Your task to perform on an android device: turn off data saver in the chrome app Image 0: 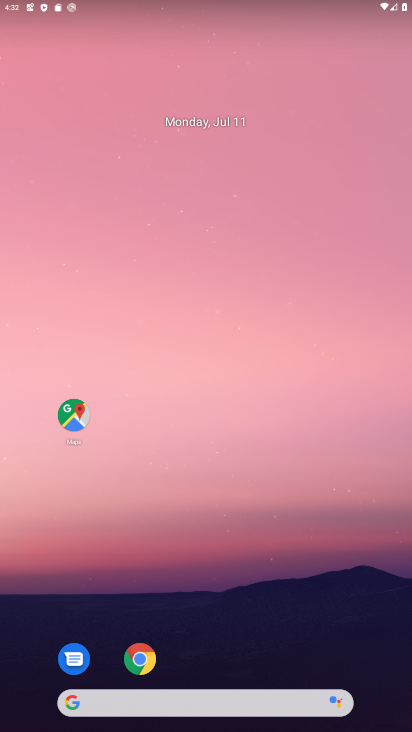
Step 0: click (140, 660)
Your task to perform on an android device: turn off data saver in the chrome app Image 1: 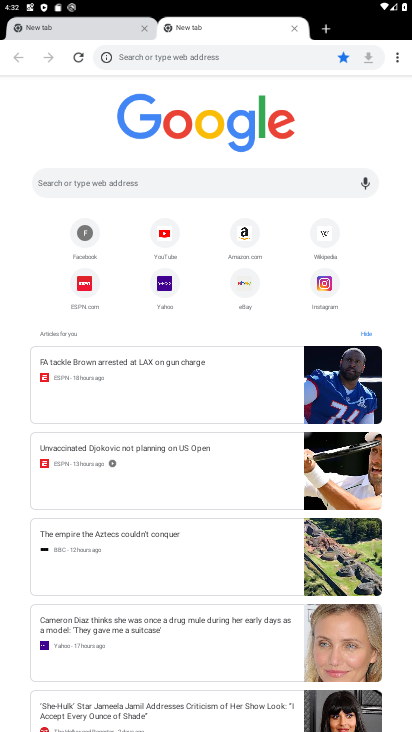
Step 1: click (397, 63)
Your task to perform on an android device: turn off data saver in the chrome app Image 2: 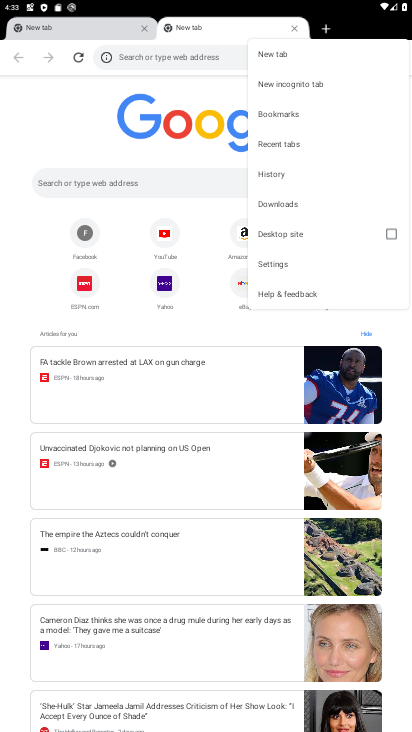
Step 2: click (294, 263)
Your task to perform on an android device: turn off data saver in the chrome app Image 3: 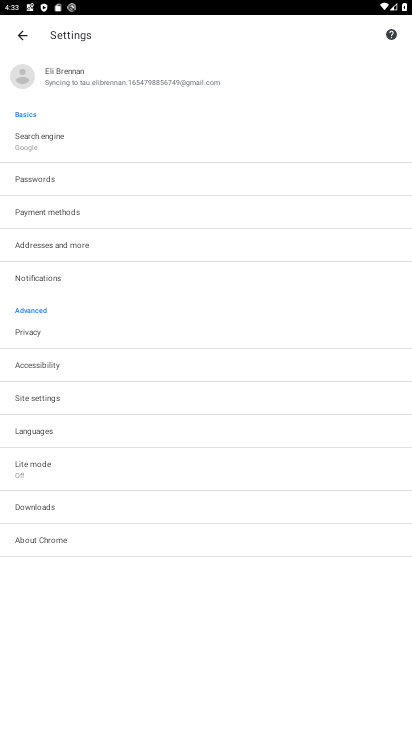
Step 3: click (69, 471)
Your task to perform on an android device: turn off data saver in the chrome app Image 4: 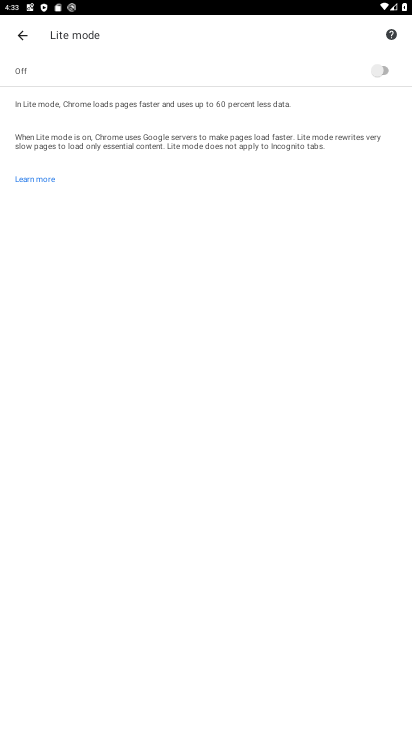
Step 4: task complete